Your task to perform on an android device: Go to privacy settings Image 0: 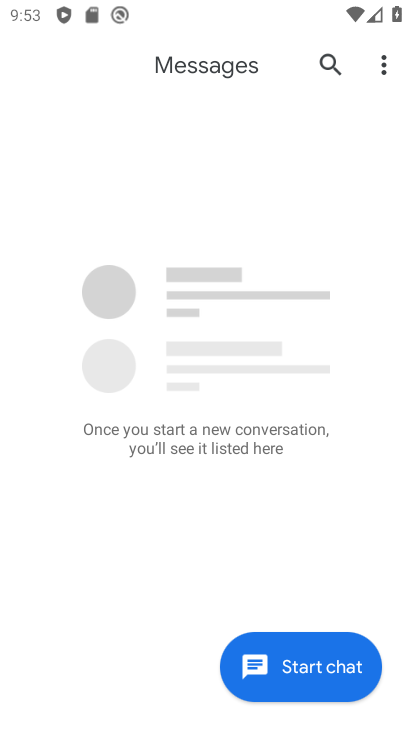
Step 0: press home button
Your task to perform on an android device: Go to privacy settings Image 1: 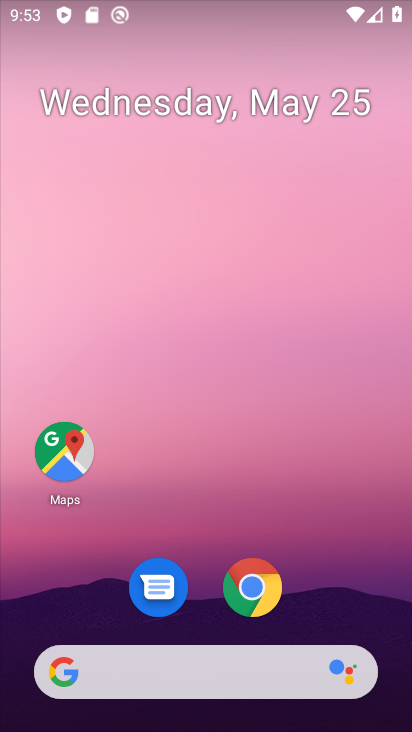
Step 1: drag from (193, 624) to (232, 83)
Your task to perform on an android device: Go to privacy settings Image 2: 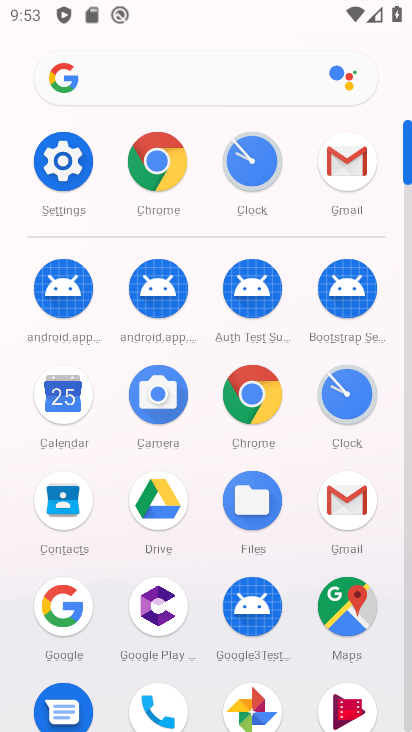
Step 2: click (74, 157)
Your task to perform on an android device: Go to privacy settings Image 3: 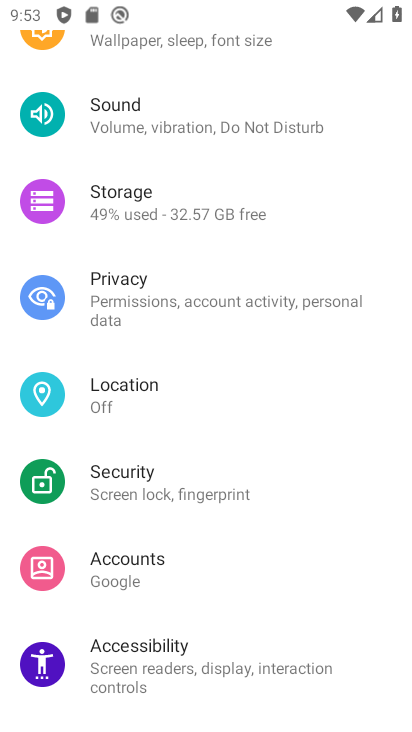
Step 3: click (168, 310)
Your task to perform on an android device: Go to privacy settings Image 4: 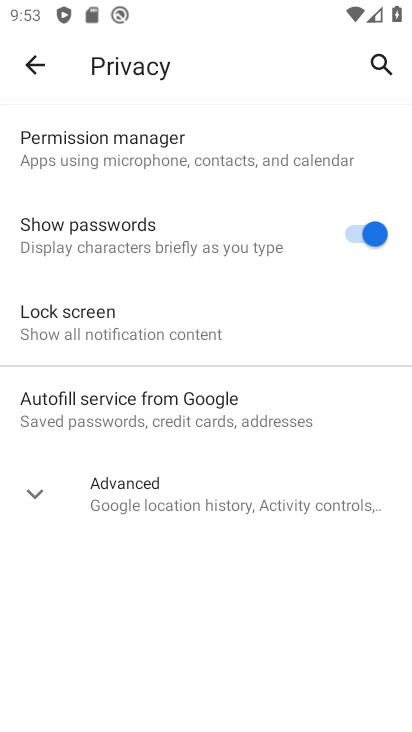
Step 4: task complete